Your task to perform on an android device: turn off notifications settings in the gmail app Image 0: 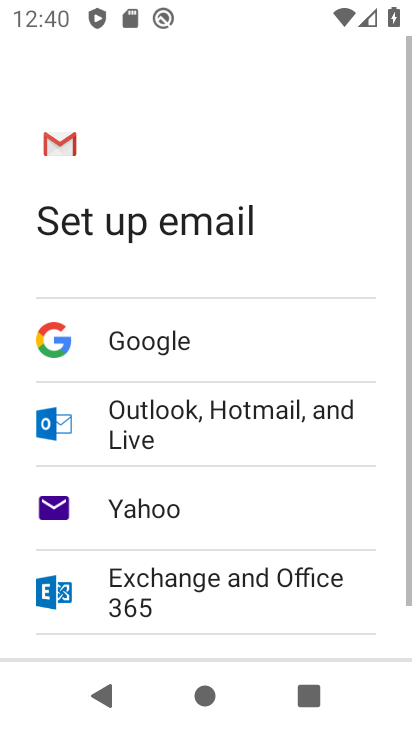
Step 0: press home button
Your task to perform on an android device: turn off notifications settings in the gmail app Image 1: 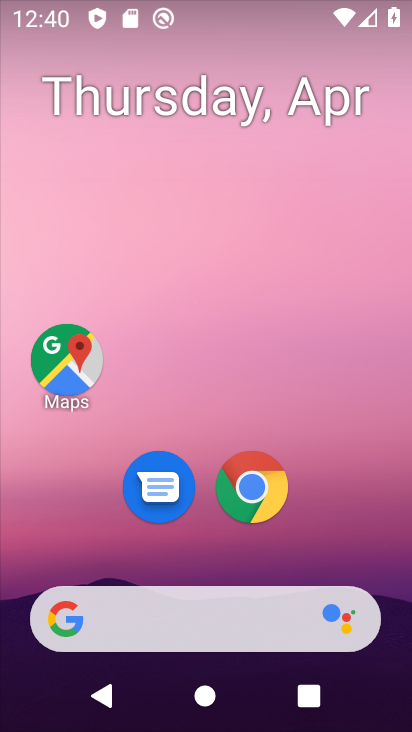
Step 1: drag from (380, 526) to (352, 112)
Your task to perform on an android device: turn off notifications settings in the gmail app Image 2: 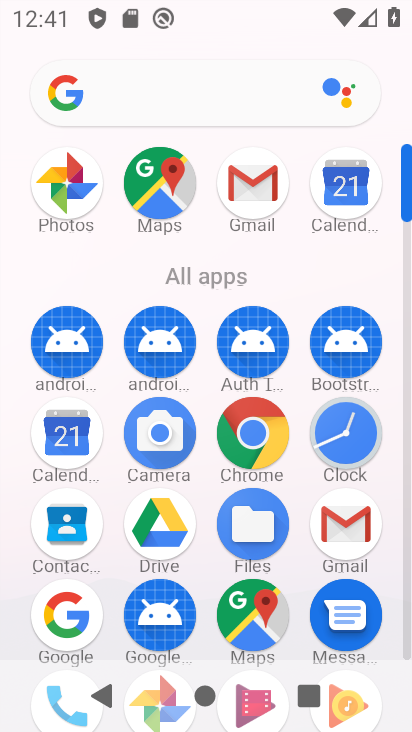
Step 2: click (349, 525)
Your task to perform on an android device: turn off notifications settings in the gmail app Image 3: 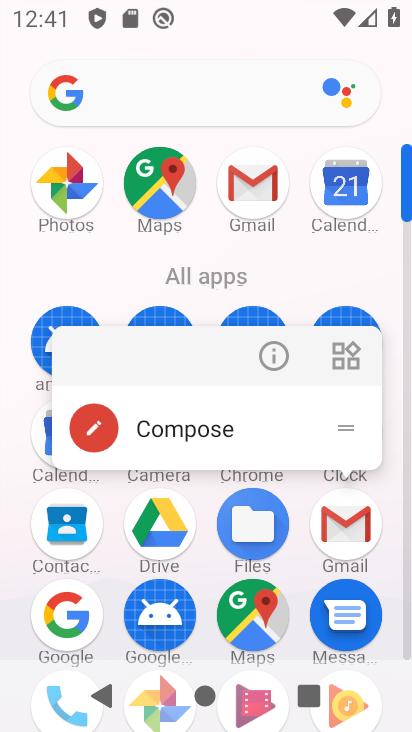
Step 3: click (349, 522)
Your task to perform on an android device: turn off notifications settings in the gmail app Image 4: 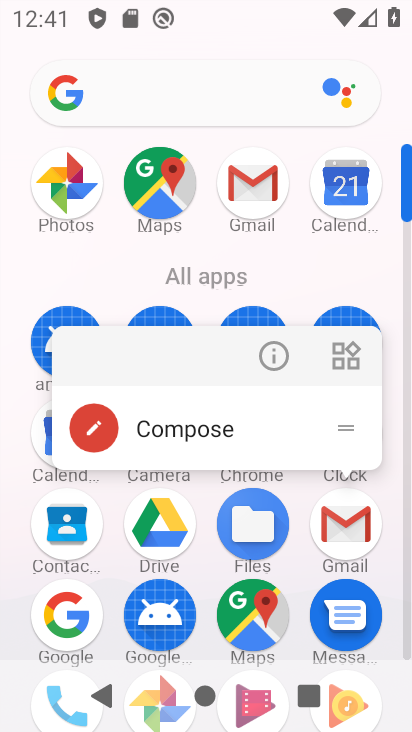
Step 4: click (347, 549)
Your task to perform on an android device: turn off notifications settings in the gmail app Image 5: 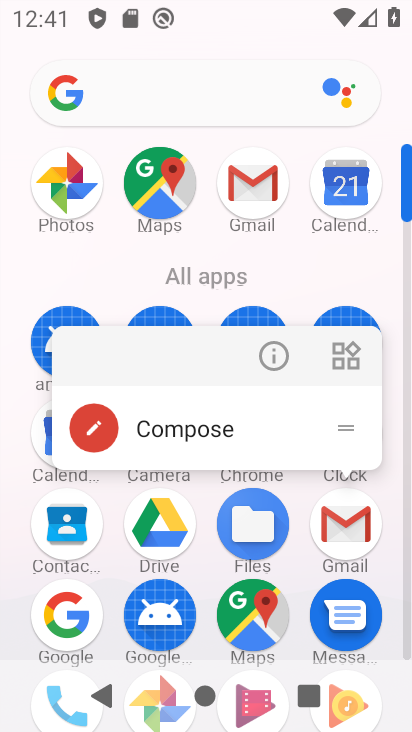
Step 5: click (353, 516)
Your task to perform on an android device: turn off notifications settings in the gmail app Image 6: 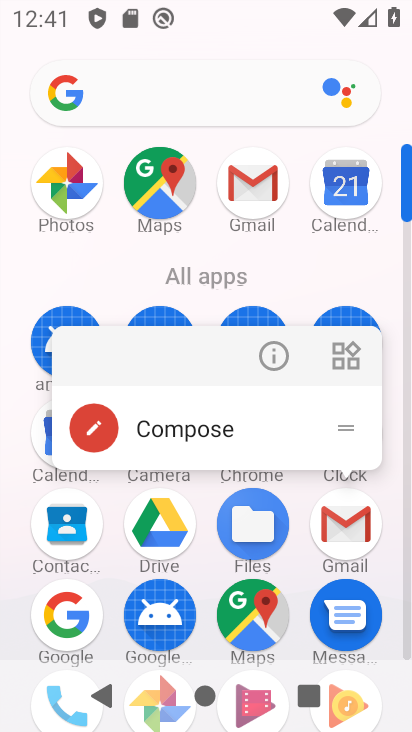
Step 6: click (347, 499)
Your task to perform on an android device: turn off notifications settings in the gmail app Image 7: 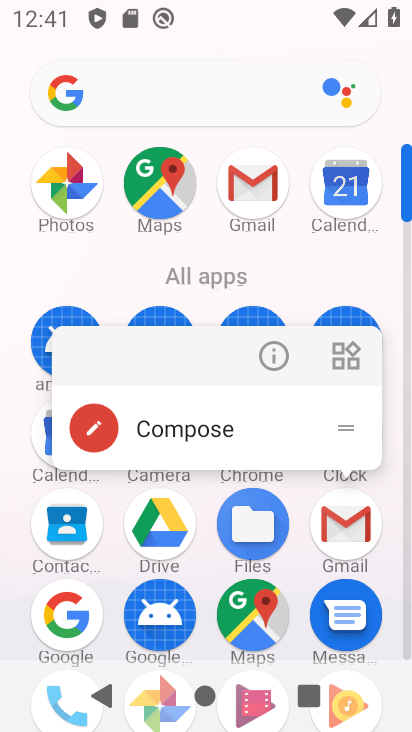
Step 7: click (346, 526)
Your task to perform on an android device: turn off notifications settings in the gmail app Image 8: 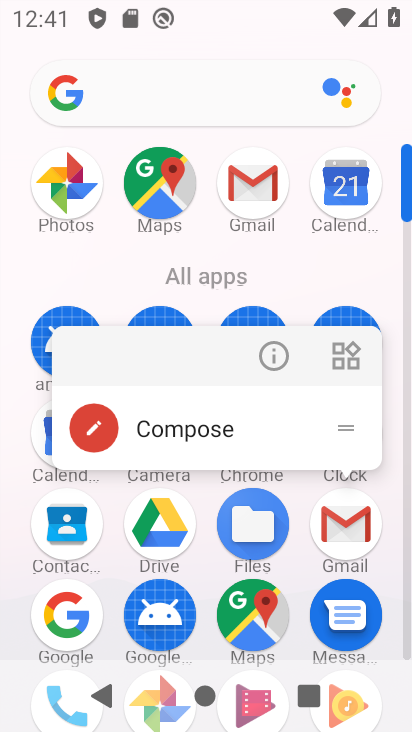
Step 8: click (339, 545)
Your task to perform on an android device: turn off notifications settings in the gmail app Image 9: 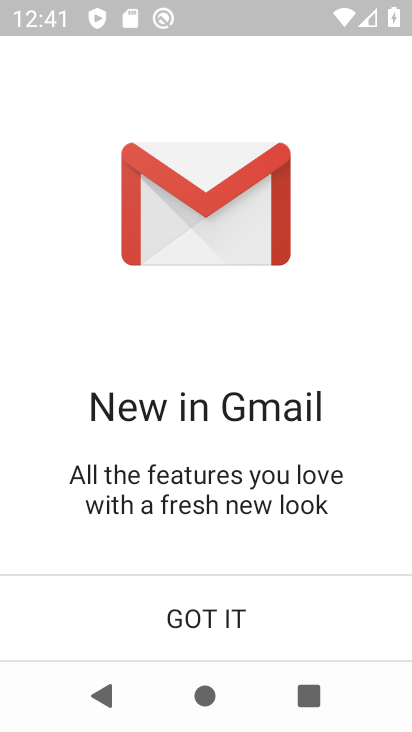
Step 9: click (206, 625)
Your task to perform on an android device: turn off notifications settings in the gmail app Image 10: 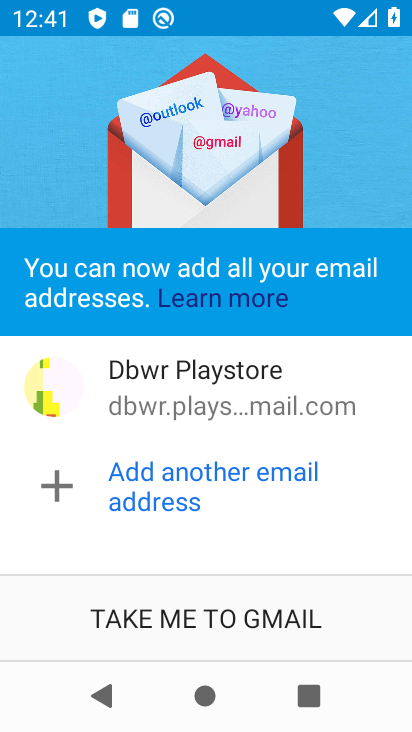
Step 10: click (221, 609)
Your task to perform on an android device: turn off notifications settings in the gmail app Image 11: 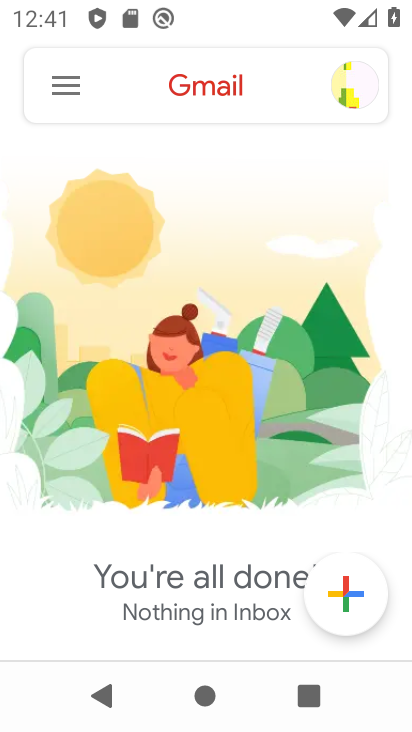
Step 11: click (66, 99)
Your task to perform on an android device: turn off notifications settings in the gmail app Image 12: 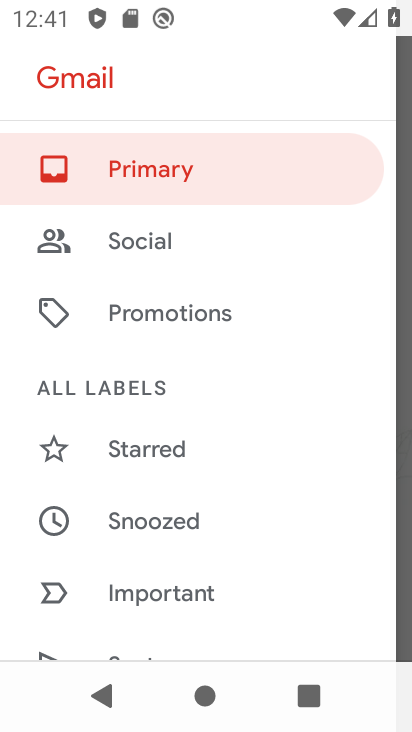
Step 12: drag from (270, 569) to (302, 269)
Your task to perform on an android device: turn off notifications settings in the gmail app Image 13: 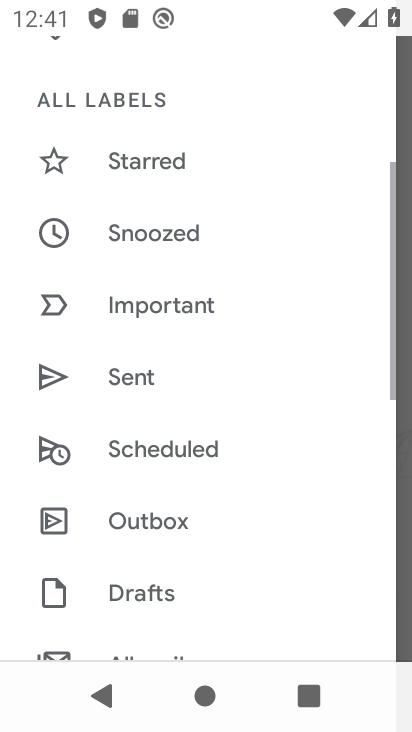
Step 13: drag from (261, 592) to (270, 241)
Your task to perform on an android device: turn off notifications settings in the gmail app Image 14: 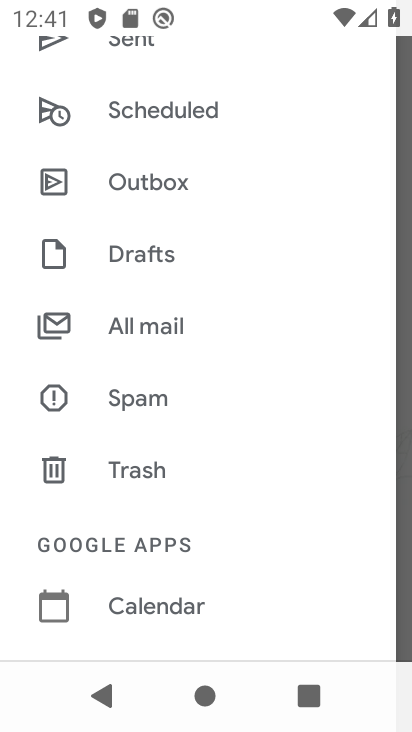
Step 14: drag from (233, 499) to (242, 315)
Your task to perform on an android device: turn off notifications settings in the gmail app Image 15: 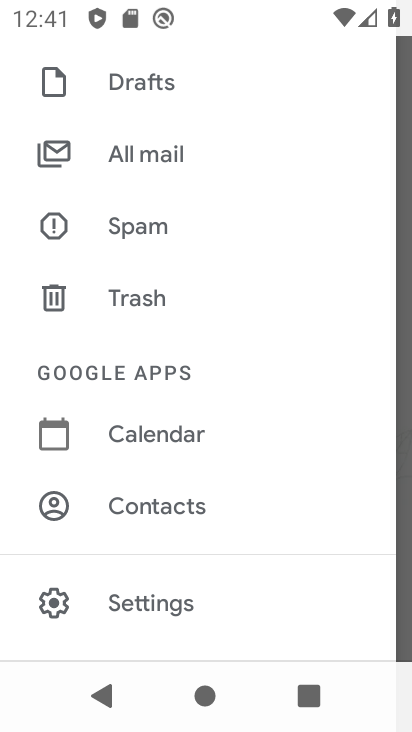
Step 15: click (183, 601)
Your task to perform on an android device: turn off notifications settings in the gmail app Image 16: 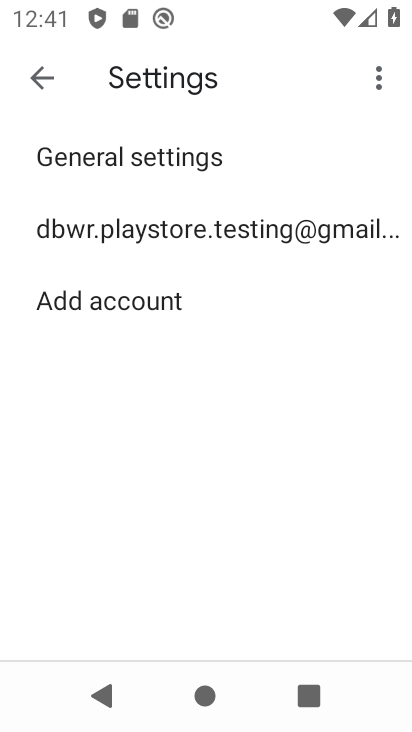
Step 16: click (292, 222)
Your task to perform on an android device: turn off notifications settings in the gmail app Image 17: 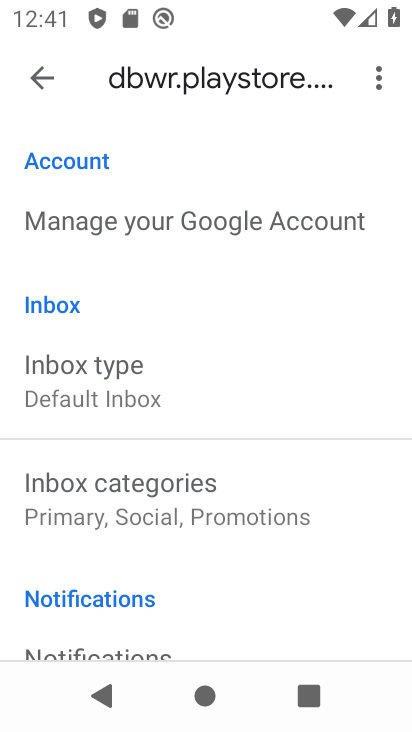
Step 17: drag from (259, 570) to (260, 297)
Your task to perform on an android device: turn off notifications settings in the gmail app Image 18: 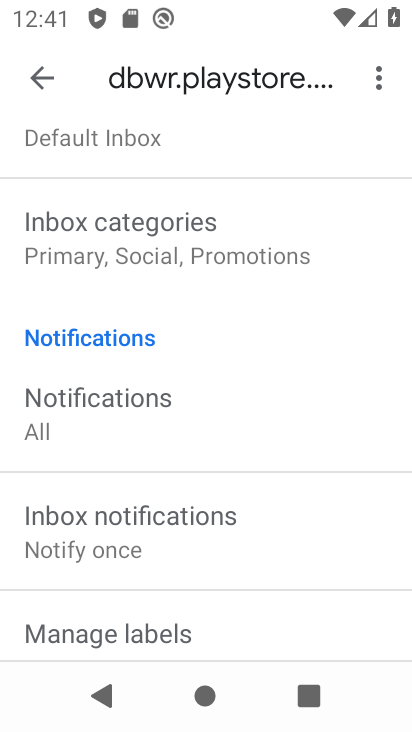
Step 18: drag from (281, 590) to (320, 397)
Your task to perform on an android device: turn off notifications settings in the gmail app Image 19: 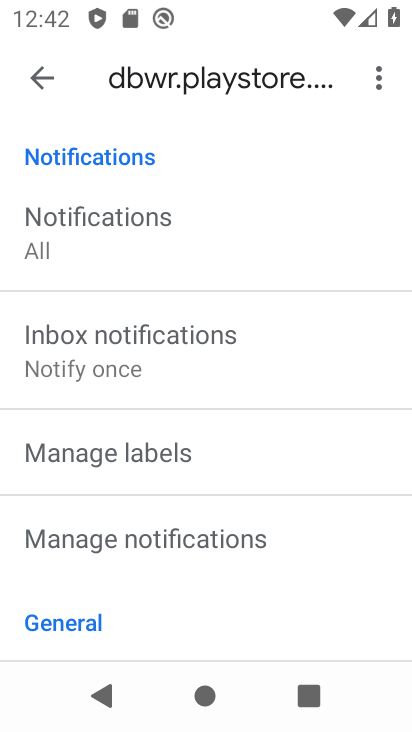
Step 19: click (151, 235)
Your task to perform on an android device: turn off notifications settings in the gmail app Image 20: 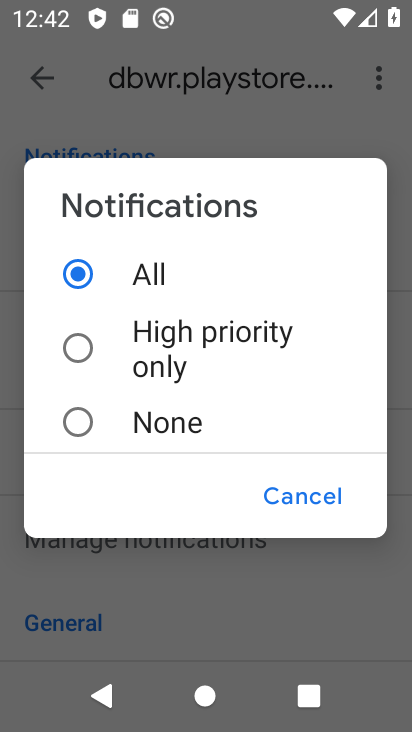
Step 20: click (85, 418)
Your task to perform on an android device: turn off notifications settings in the gmail app Image 21: 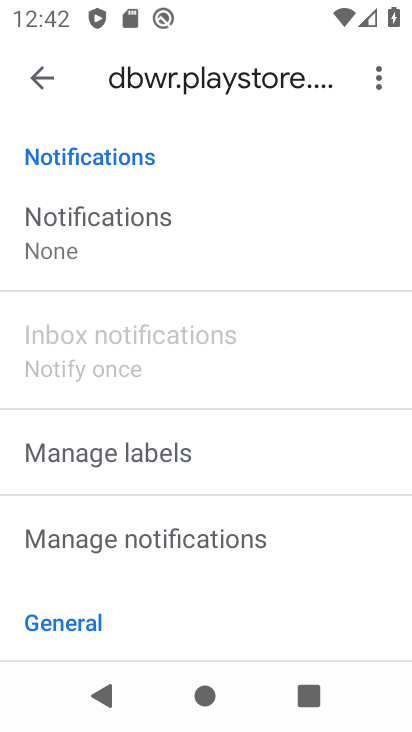
Step 21: task complete